Your task to perform on an android device: What's on the menu at Panera? Image 0: 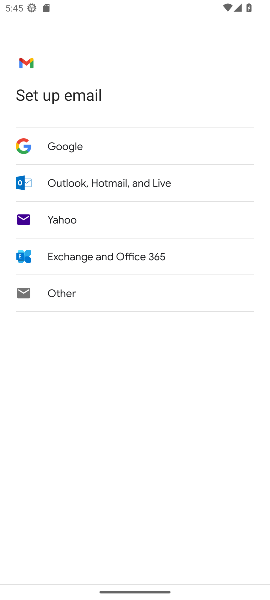
Step 0: press home button
Your task to perform on an android device: What's on the menu at Panera? Image 1: 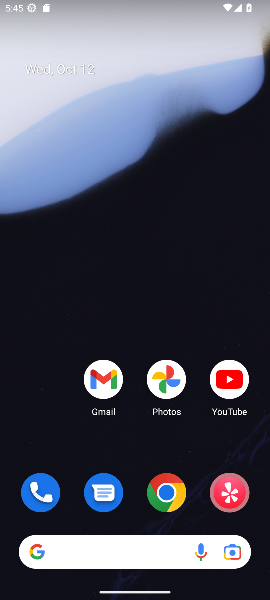
Step 1: click (166, 500)
Your task to perform on an android device: What's on the menu at Panera? Image 2: 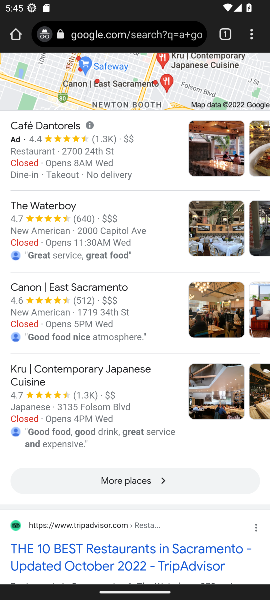
Step 2: click (110, 39)
Your task to perform on an android device: What's on the menu at Panera? Image 3: 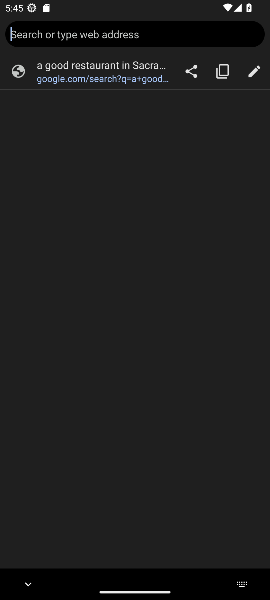
Step 3: type "Panera menu"
Your task to perform on an android device: What's on the menu at Panera? Image 4: 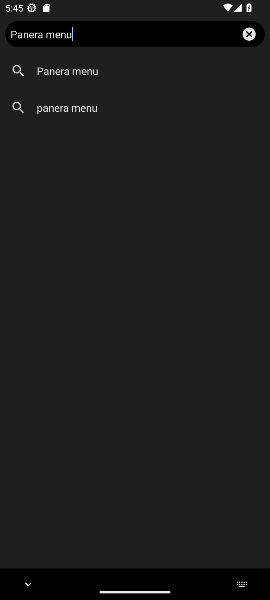
Step 4: click (65, 76)
Your task to perform on an android device: What's on the menu at Panera? Image 5: 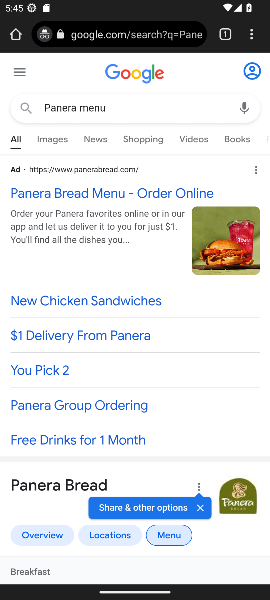
Step 5: task complete